Your task to perform on an android device: Open maps Image 0: 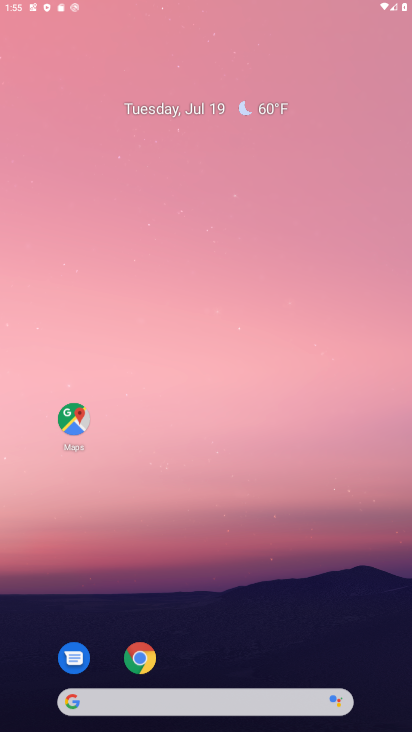
Step 0: click (302, 555)
Your task to perform on an android device: Open maps Image 1: 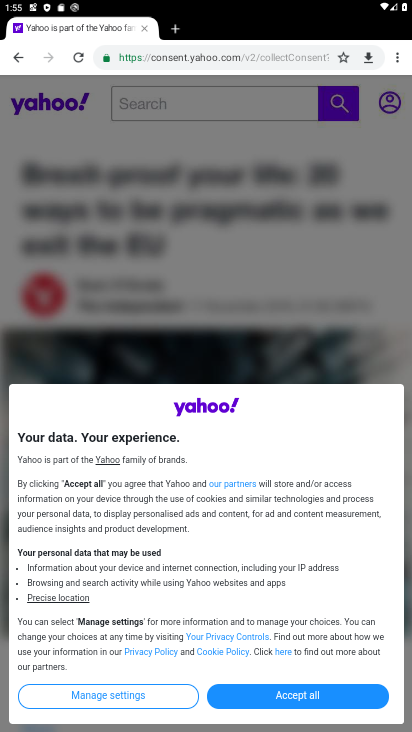
Step 1: press home button
Your task to perform on an android device: Open maps Image 2: 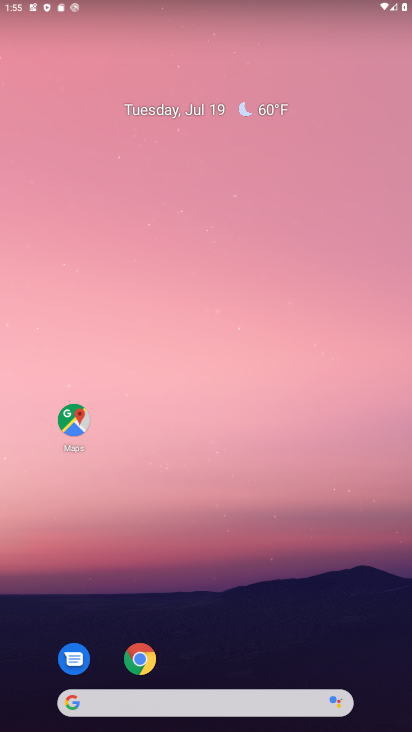
Step 2: click (81, 412)
Your task to perform on an android device: Open maps Image 3: 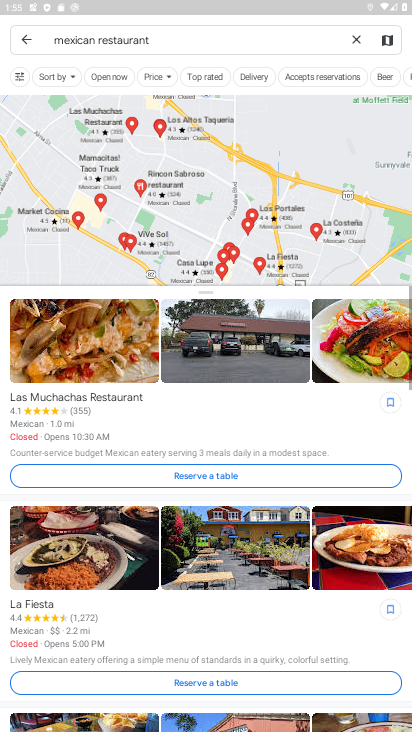
Step 3: click (19, 45)
Your task to perform on an android device: Open maps Image 4: 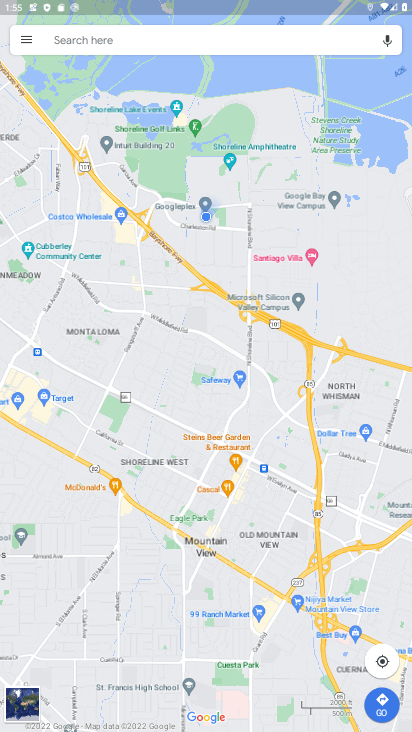
Step 4: task complete